Your task to perform on an android device: change notification settings in the gmail app Image 0: 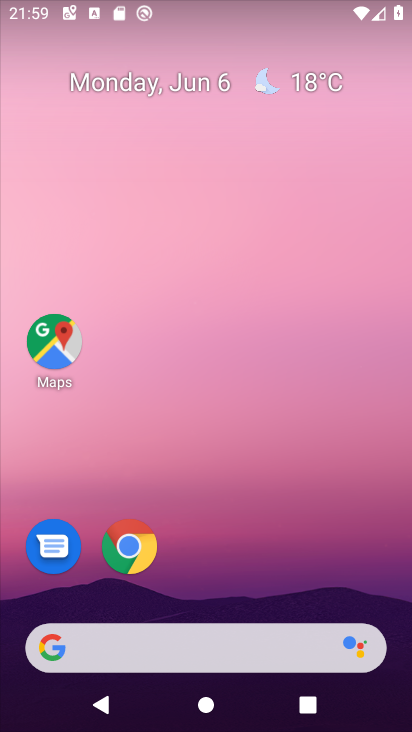
Step 0: drag from (365, 596) to (319, 108)
Your task to perform on an android device: change notification settings in the gmail app Image 1: 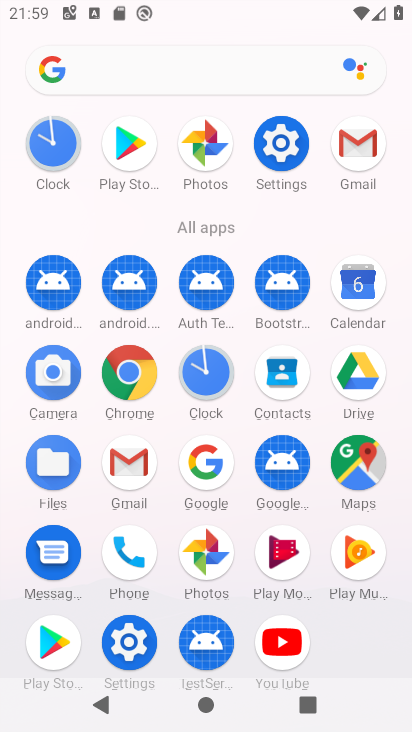
Step 1: click (129, 465)
Your task to perform on an android device: change notification settings in the gmail app Image 2: 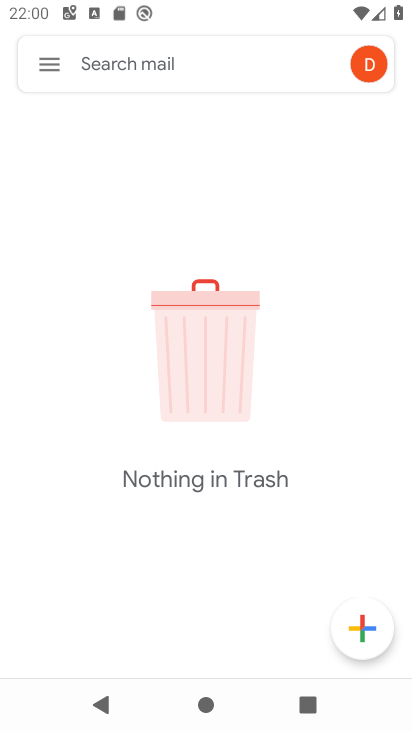
Step 2: click (43, 75)
Your task to perform on an android device: change notification settings in the gmail app Image 3: 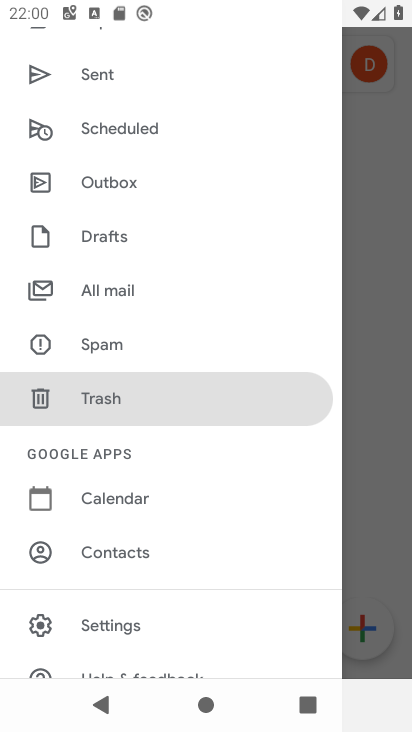
Step 3: click (110, 612)
Your task to perform on an android device: change notification settings in the gmail app Image 4: 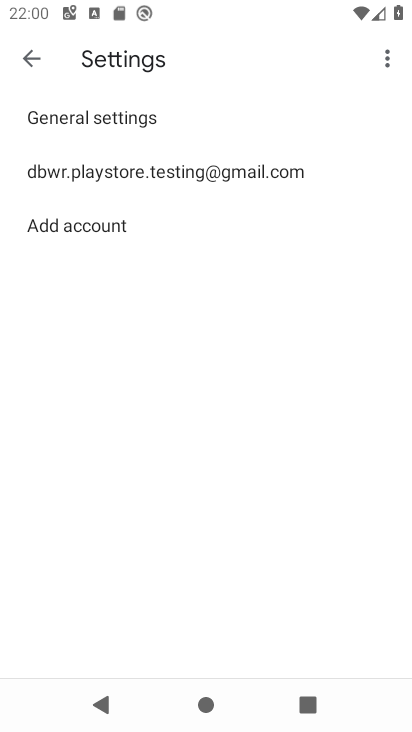
Step 4: click (148, 167)
Your task to perform on an android device: change notification settings in the gmail app Image 5: 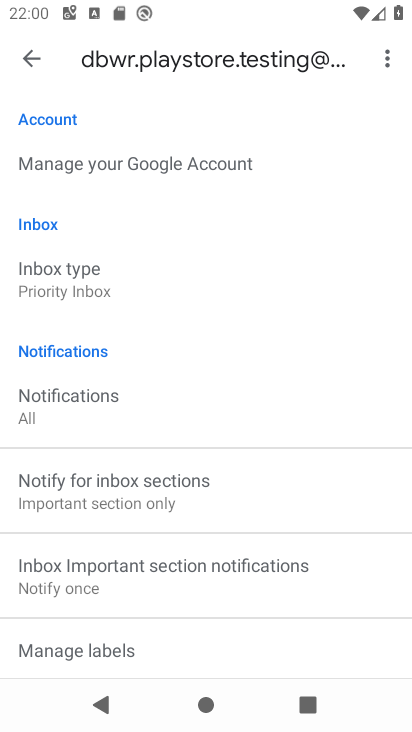
Step 5: drag from (198, 619) to (196, 299)
Your task to perform on an android device: change notification settings in the gmail app Image 6: 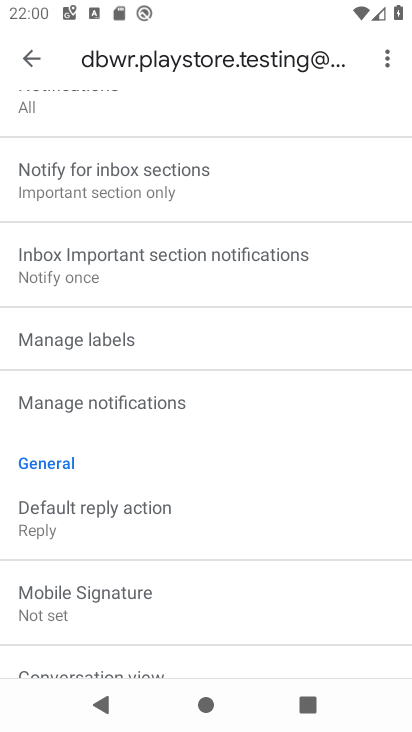
Step 6: click (86, 400)
Your task to perform on an android device: change notification settings in the gmail app Image 7: 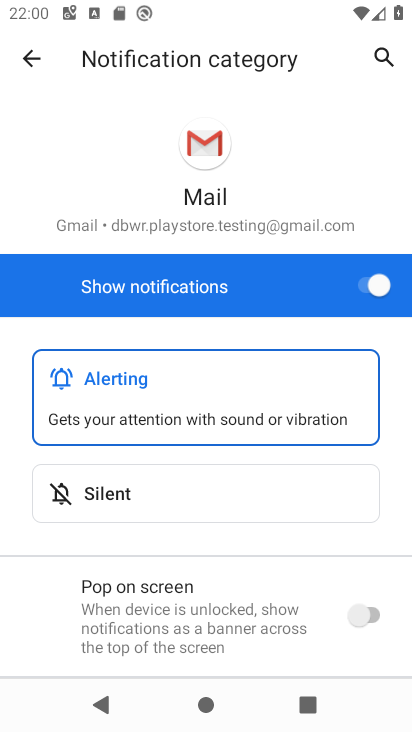
Step 7: click (364, 280)
Your task to perform on an android device: change notification settings in the gmail app Image 8: 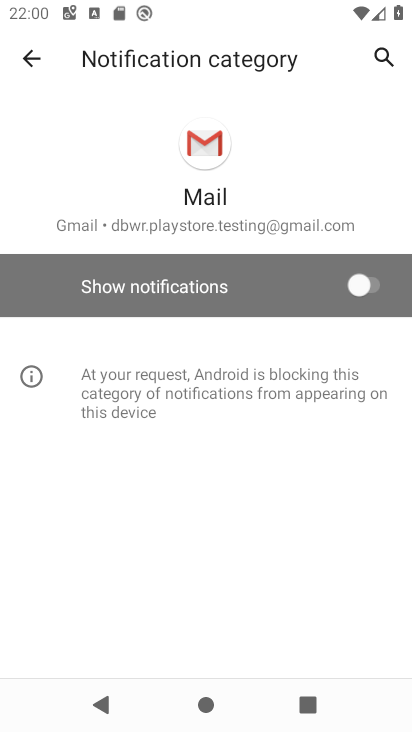
Step 8: task complete